Your task to perform on an android device: find which apps use the phone's location Image 0: 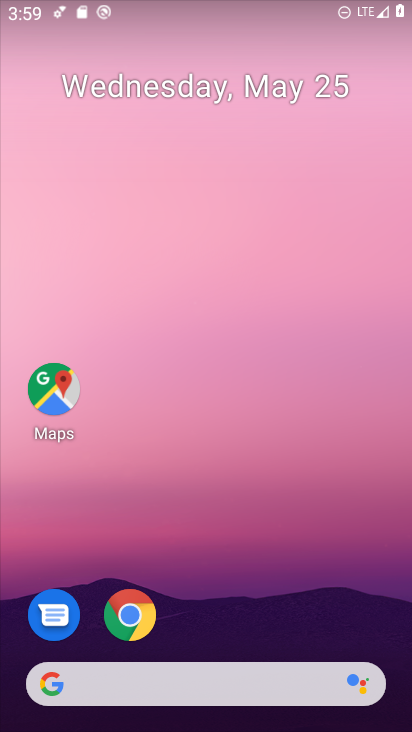
Step 0: drag from (270, 640) to (291, 72)
Your task to perform on an android device: find which apps use the phone's location Image 1: 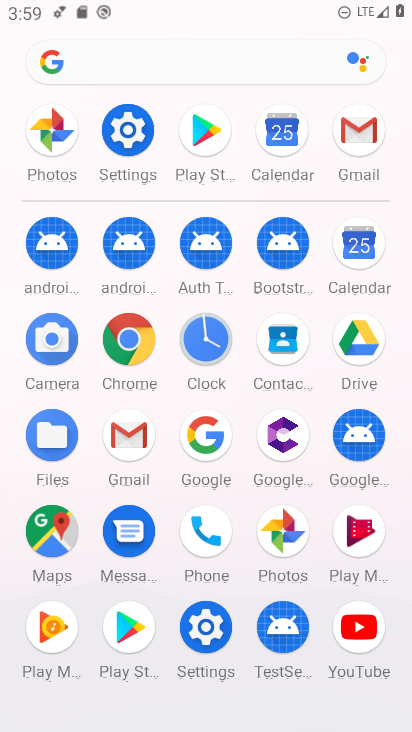
Step 1: click (133, 126)
Your task to perform on an android device: find which apps use the phone's location Image 2: 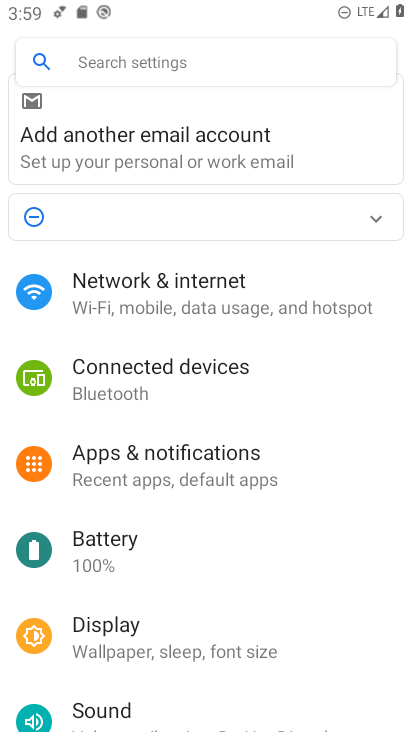
Step 2: drag from (177, 509) to (226, 193)
Your task to perform on an android device: find which apps use the phone's location Image 3: 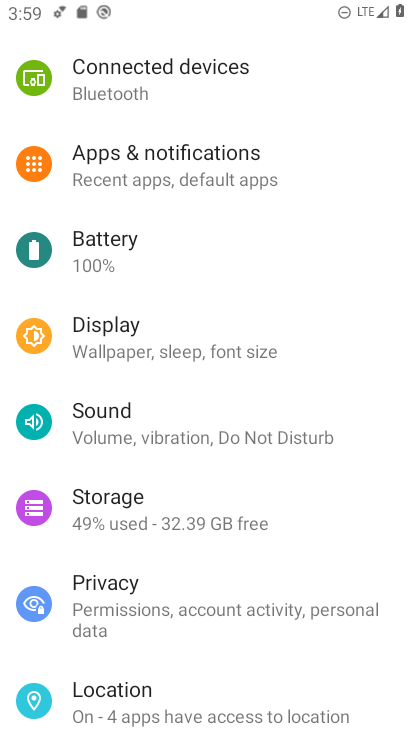
Step 3: click (206, 701)
Your task to perform on an android device: find which apps use the phone's location Image 4: 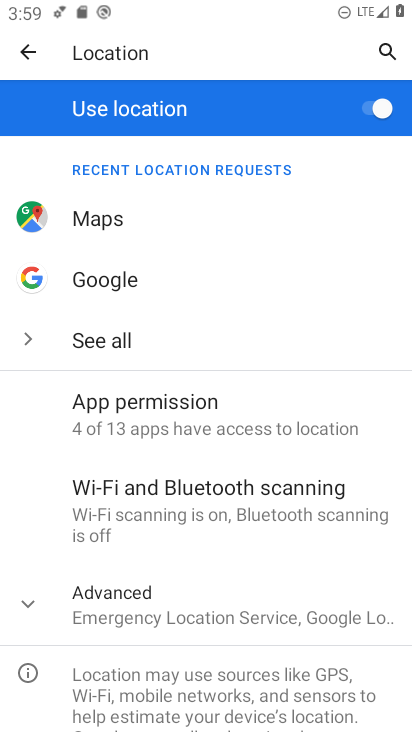
Step 4: click (180, 400)
Your task to perform on an android device: find which apps use the phone's location Image 5: 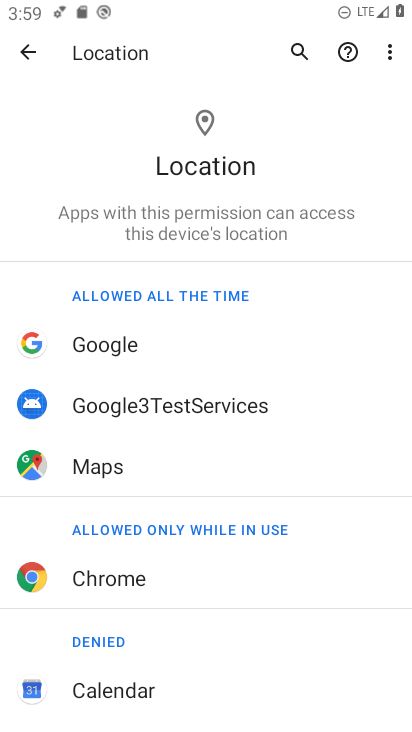
Step 5: task complete